Your task to perform on an android device: read, delete, or share a saved page in the chrome app Image 0: 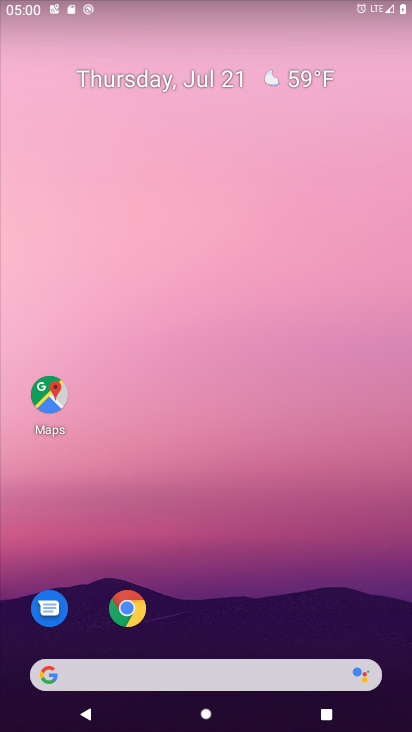
Step 0: drag from (312, 689) to (323, 43)
Your task to perform on an android device: read, delete, or share a saved page in the chrome app Image 1: 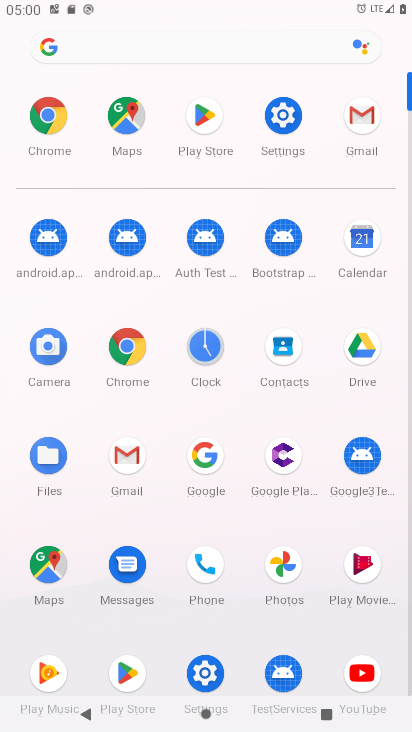
Step 1: click (141, 350)
Your task to perform on an android device: read, delete, or share a saved page in the chrome app Image 2: 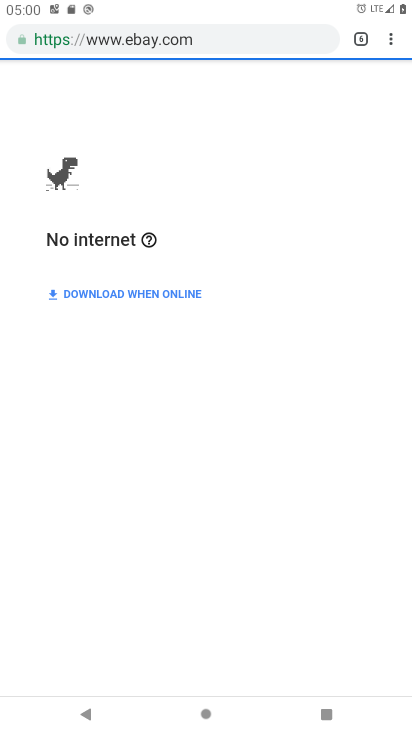
Step 2: task complete